Your task to perform on an android device: Clear all items from cart on newegg.com. Search for "logitech g933" on newegg.com, select the first entry, add it to the cart, then select checkout. Image 0: 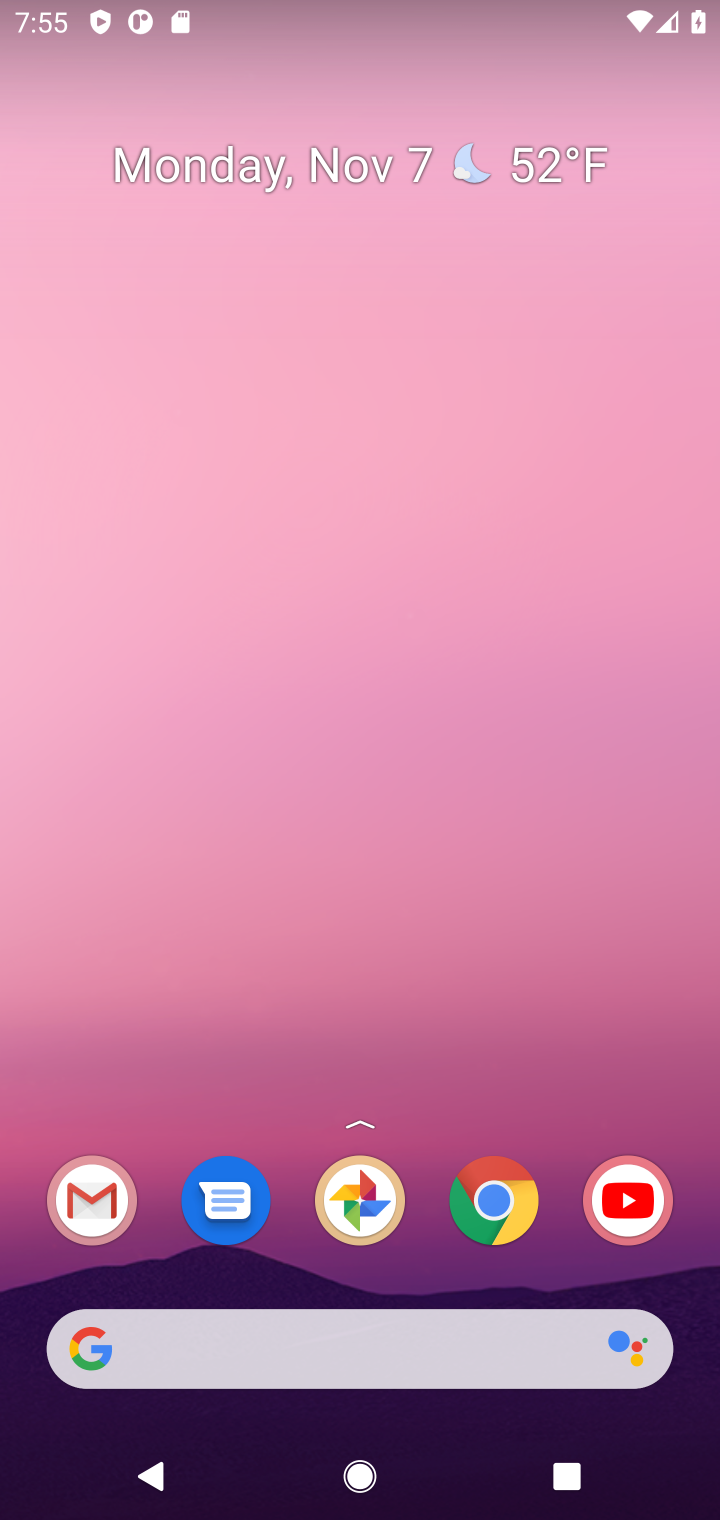
Step 0: click (473, 1224)
Your task to perform on an android device: Clear all items from cart on newegg.com. Search for "logitech g933" on newegg.com, select the first entry, add it to the cart, then select checkout. Image 1: 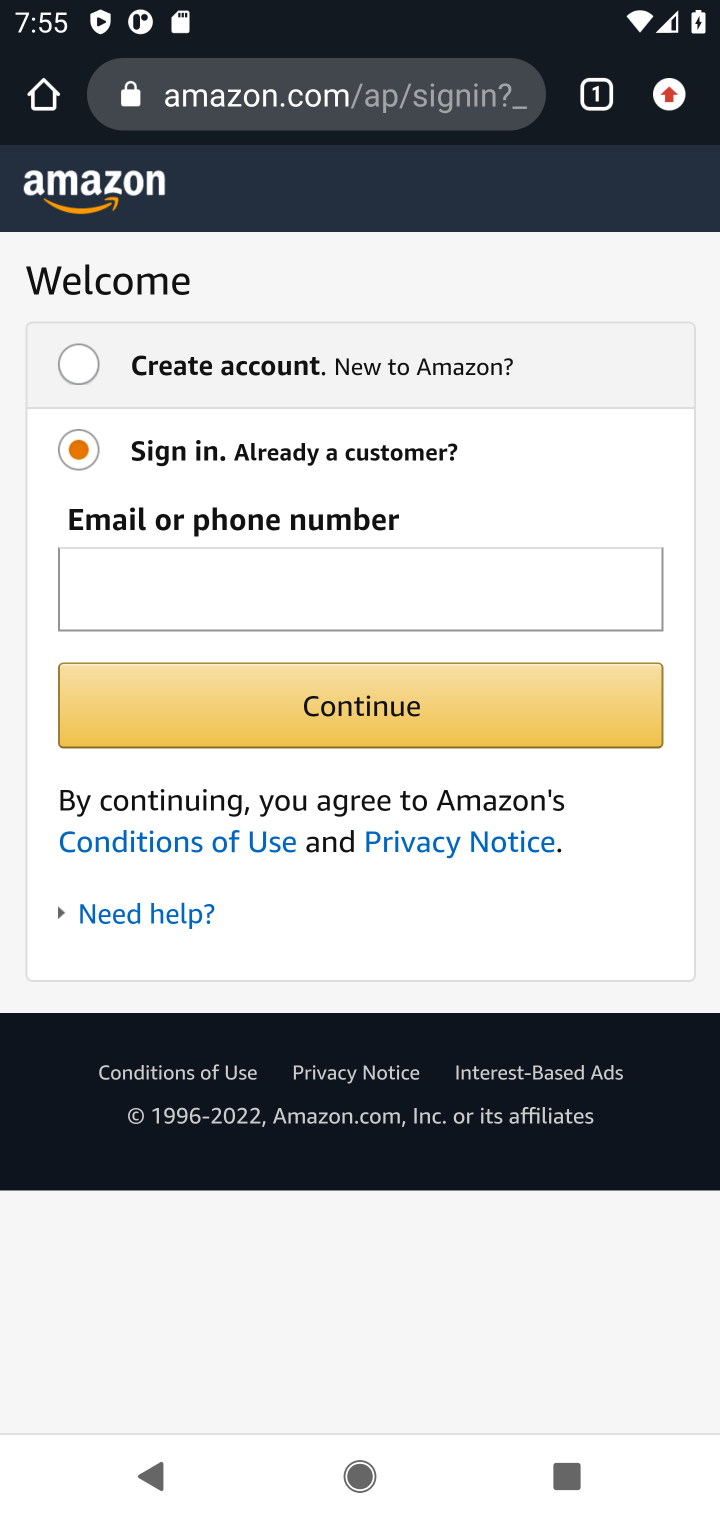
Step 1: click (286, 120)
Your task to perform on an android device: Clear all items from cart on newegg.com. Search for "logitech g933" on newegg.com, select the first entry, add it to the cart, then select checkout. Image 2: 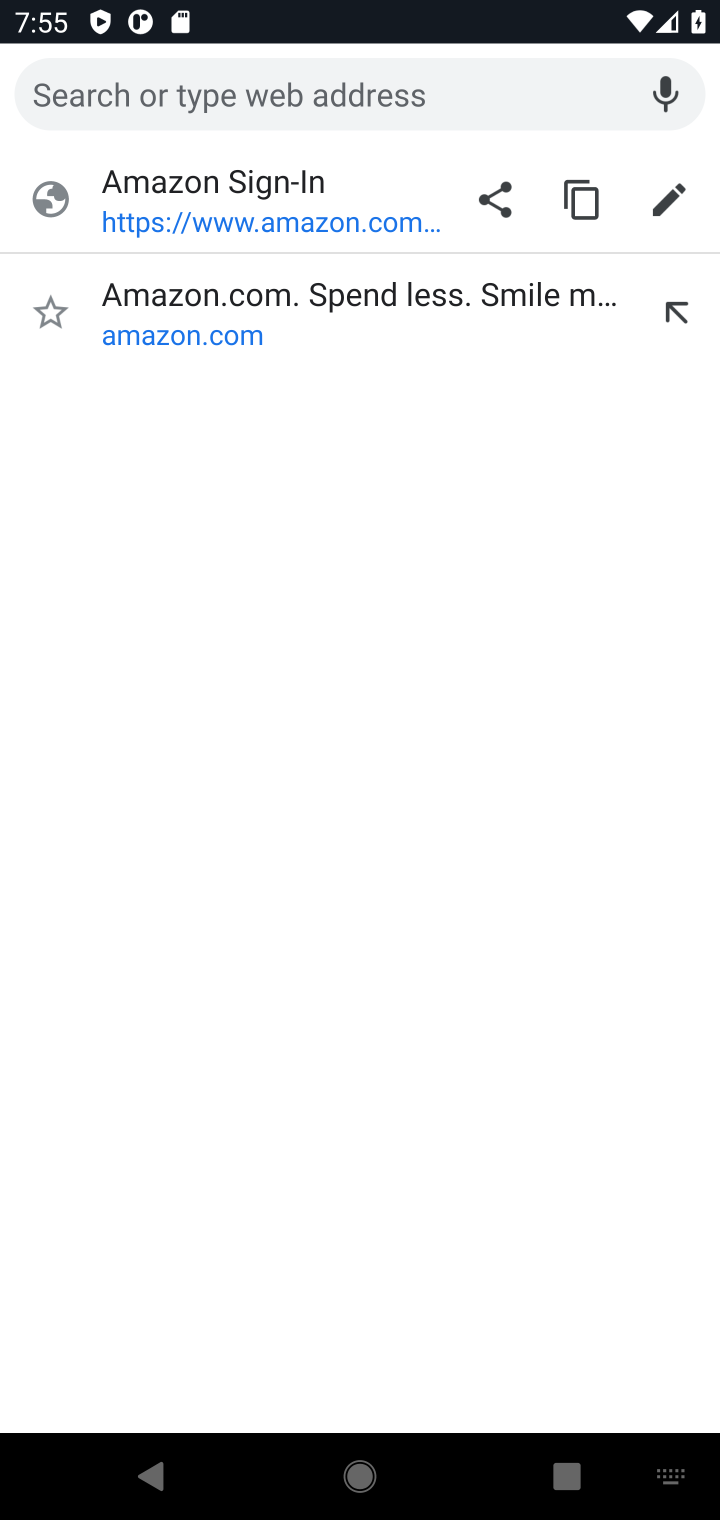
Step 2: type "newegg.com"
Your task to perform on an android device: Clear all items from cart on newegg.com. Search for "logitech g933" on newegg.com, select the first entry, add it to the cart, then select checkout. Image 3: 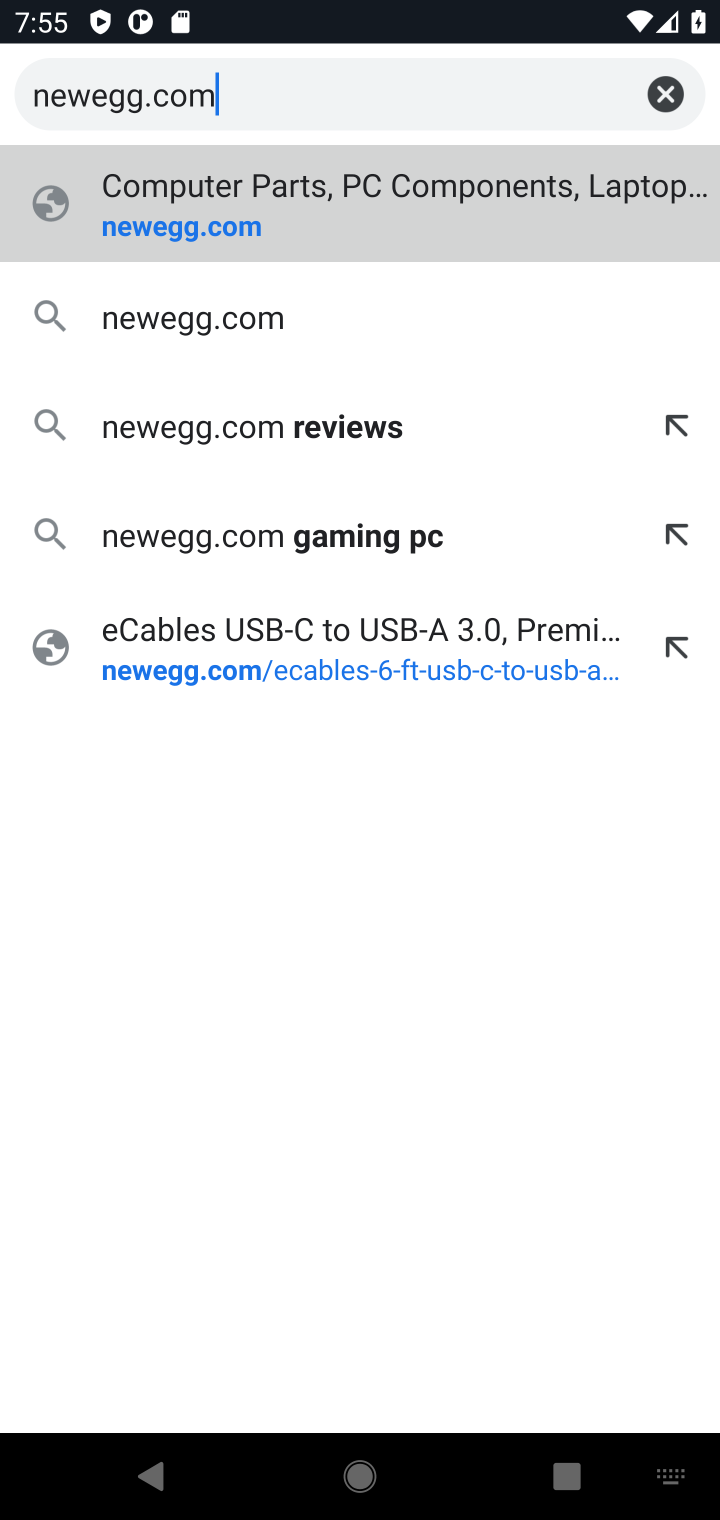
Step 3: press enter
Your task to perform on an android device: Clear all items from cart on newegg.com. Search for "logitech g933" on newegg.com, select the first entry, add it to the cart, then select checkout. Image 4: 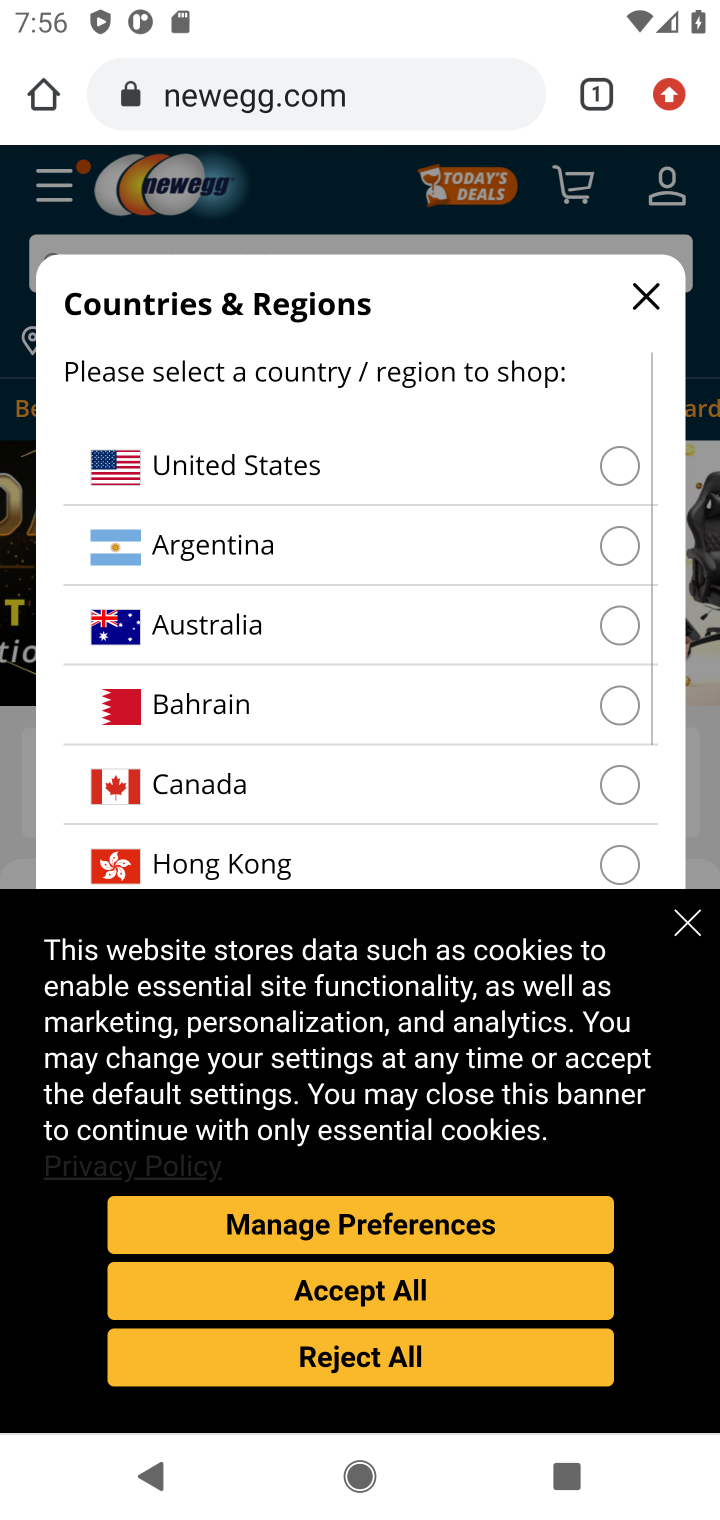
Step 4: click (383, 1302)
Your task to perform on an android device: Clear all items from cart on newegg.com. Search for "logitech g933" on newegg.com, select the first entry, add it to the cart, then select checkout. Image 5: 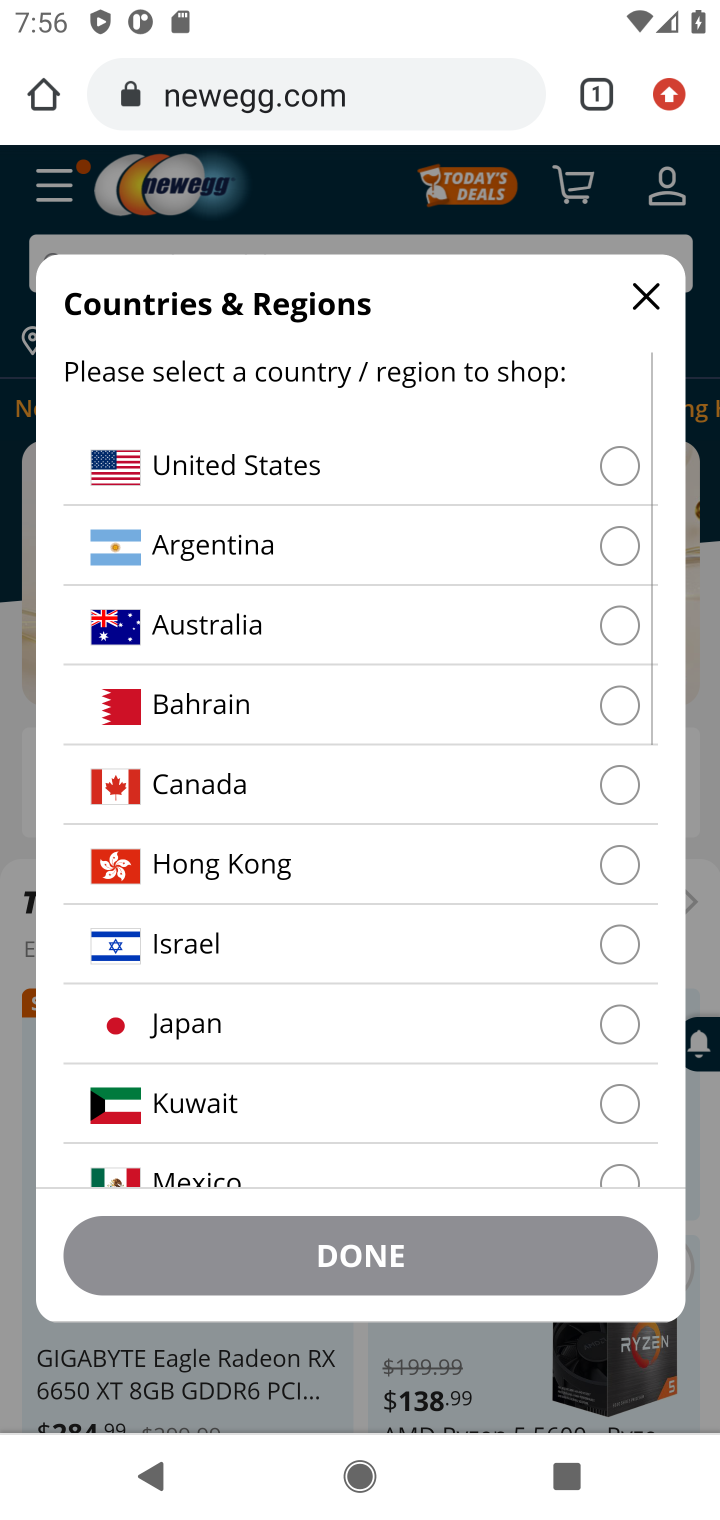
Step 5: click (612, 473)
Your task to perform on an android device: Clear all items from cart on newegg.com. Search for "logitech g933" on newegg.com, select the first entry, add it to the cart, then select checkout. Image 6: 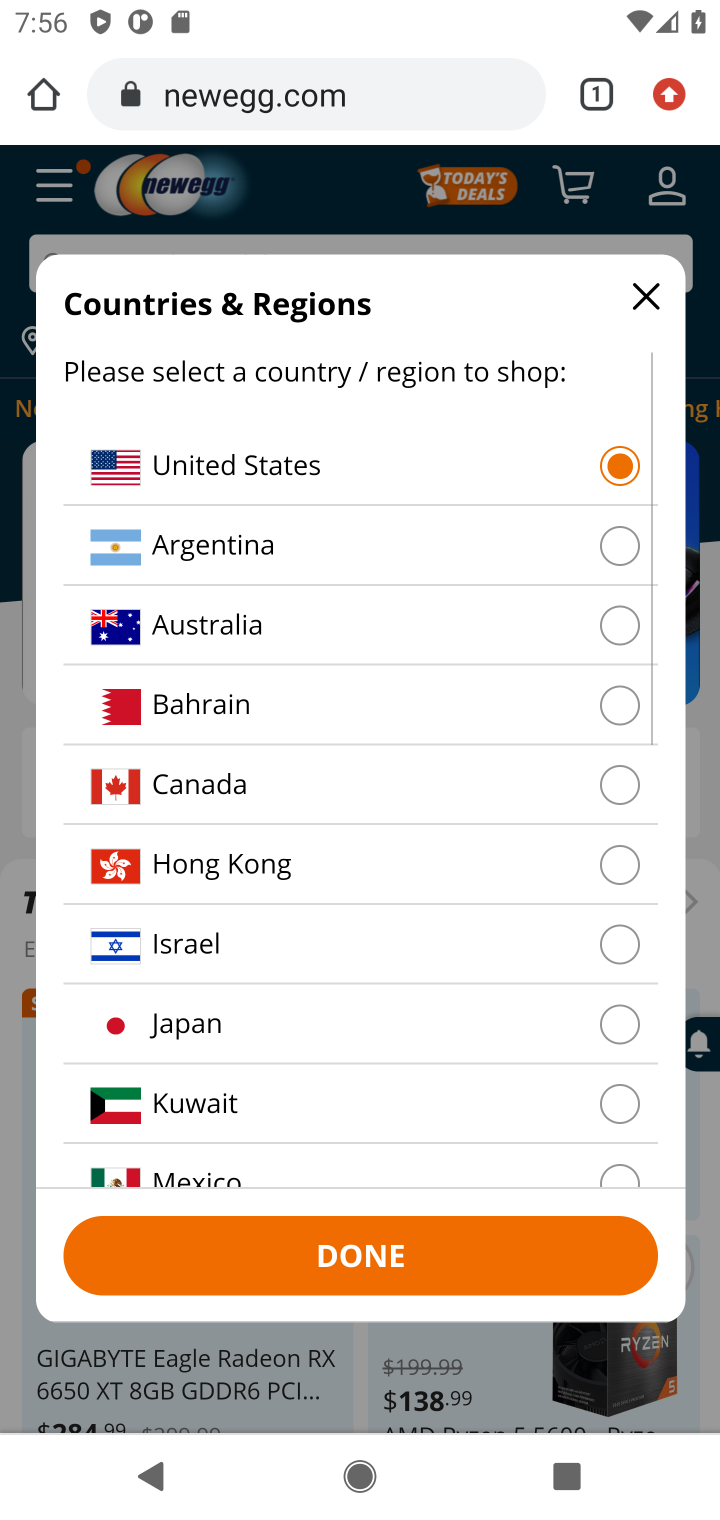
Step 6: click (467, 1272)
Your task to perform on an android device: Clear all items from cart on newegg.com. Search for "logitech g933" on newegg.com, select the first entry, add it to the cart, then select checkout. Image 7: 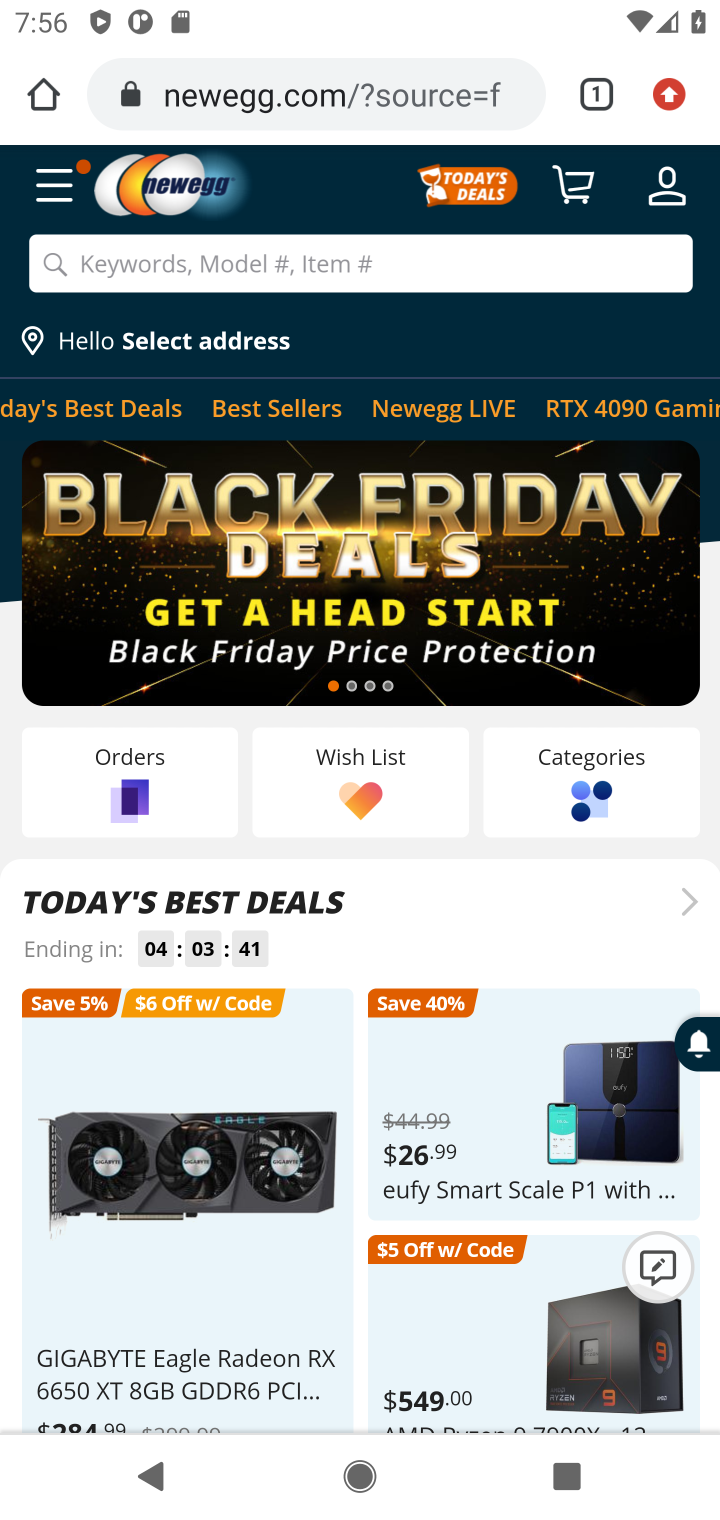
Step 7: click (34, 204)
Your task to perform on an android device: Clear all items from cart on newegg.com. Search for "logitech g933" on newegg.com, select the first entry, add it to the cart, then select checkout. Image 8: 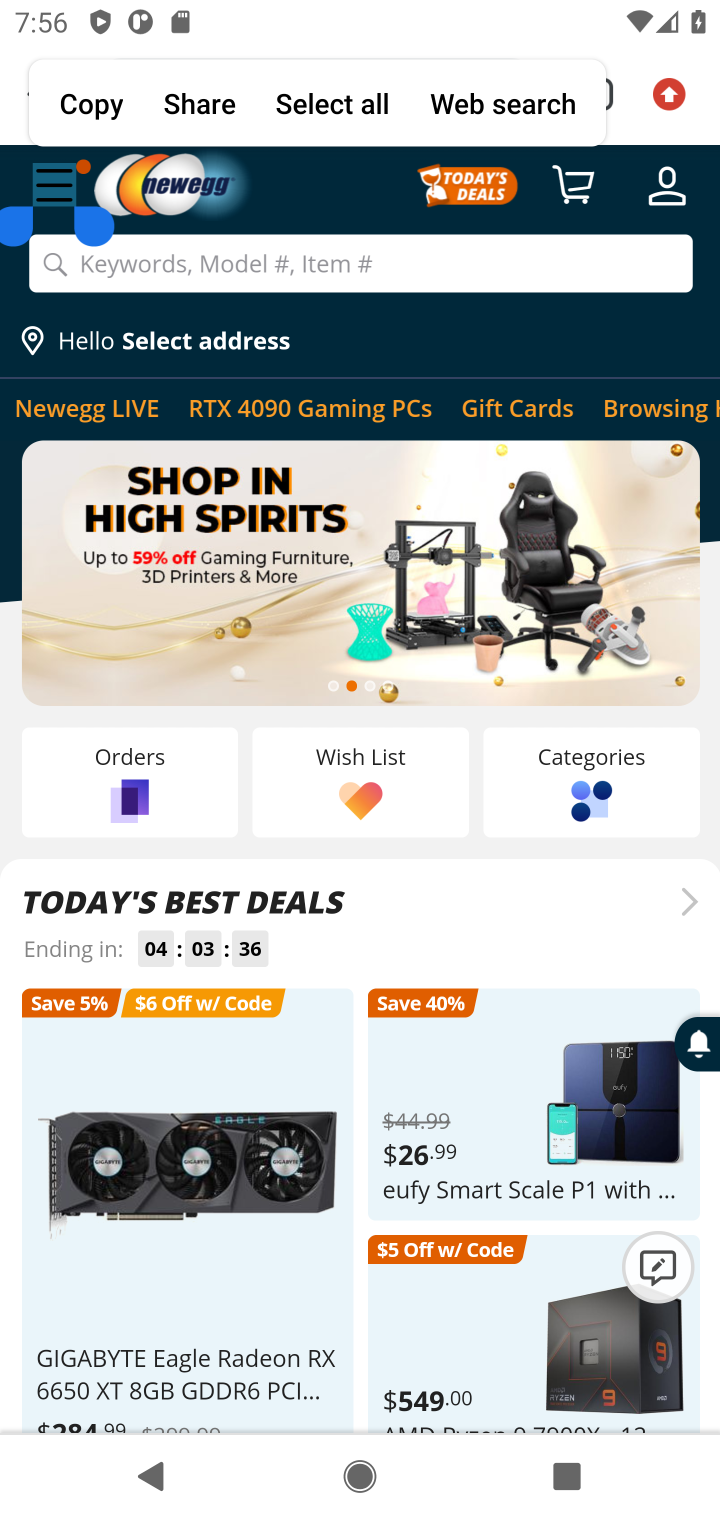
Step 8: click (69, 187)
Your task to perform on an android device: Clear all items from cart on newegg.com. Search for "logitech g933" on newegg.com, select the first entry, add it to the cart, then select checkout. Image 9: 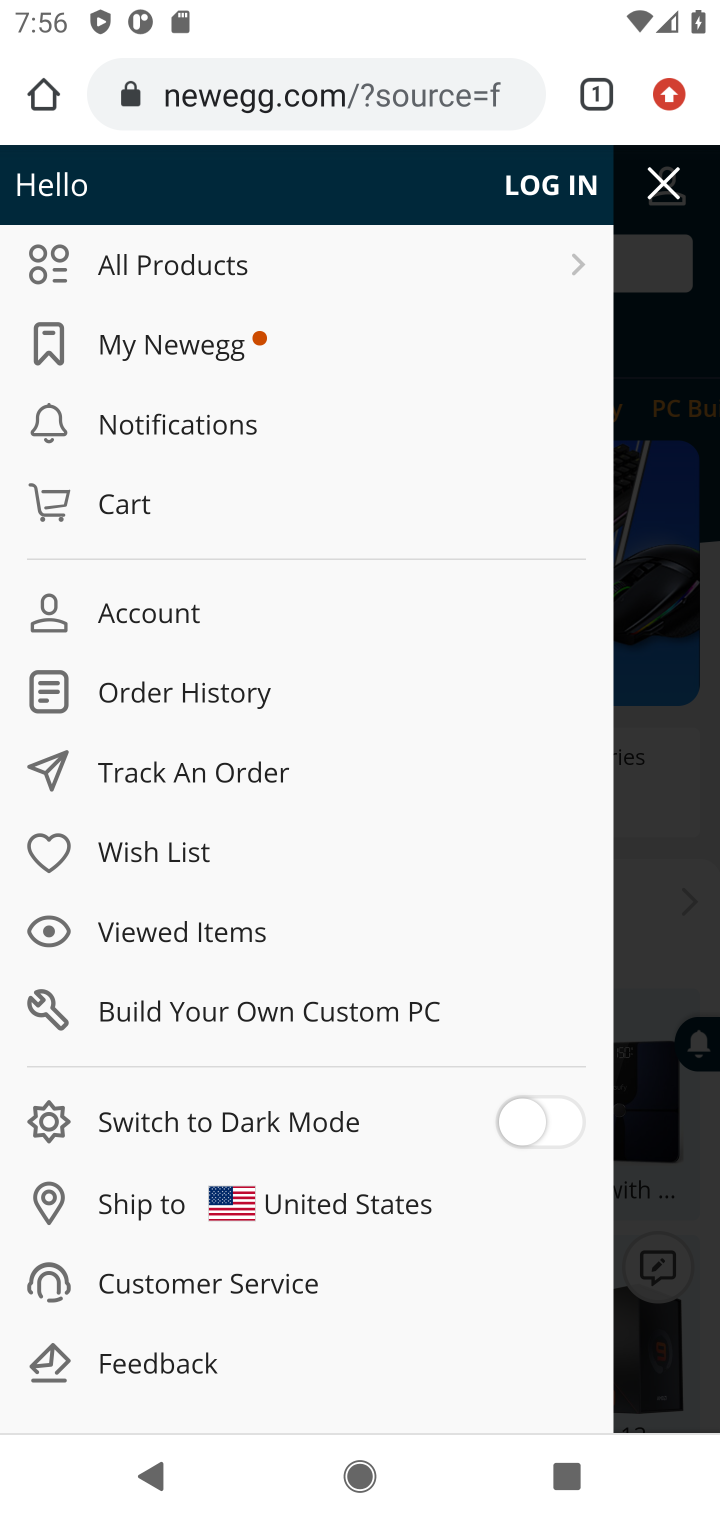
Step 9: click (112, 514)
Your task to perform on an android device: Clear all items from cart on newegg.com. Search for "logitech g933" on newegg.com, select the first entry, add it to the cart, then select checkout. Image 10: 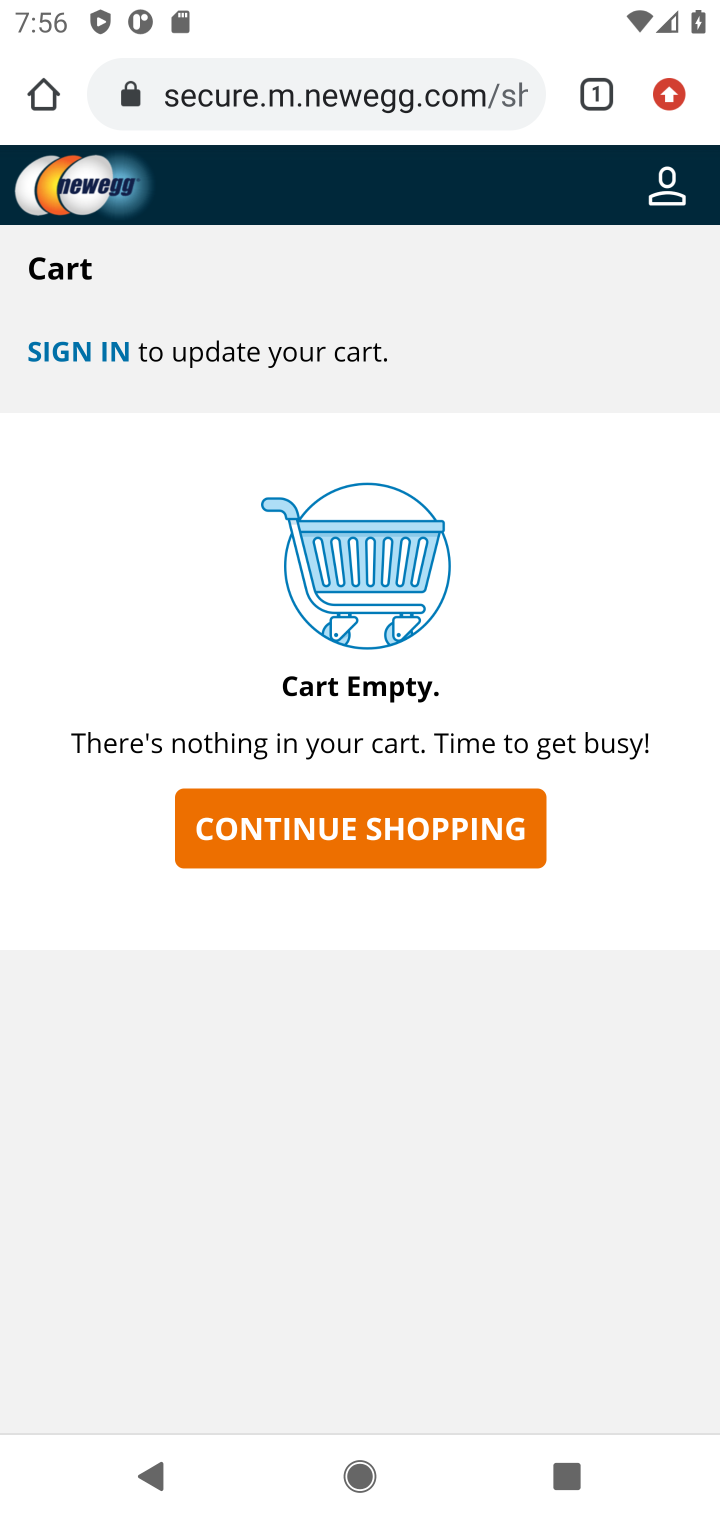
Step 10: click (81, 195)
Your task to perform on an android device: Clear all items from cart on newegg.com. Search for "logitech g933" on newegg.com, select the first entry, add it to the cart, then select checkout. Image 11: 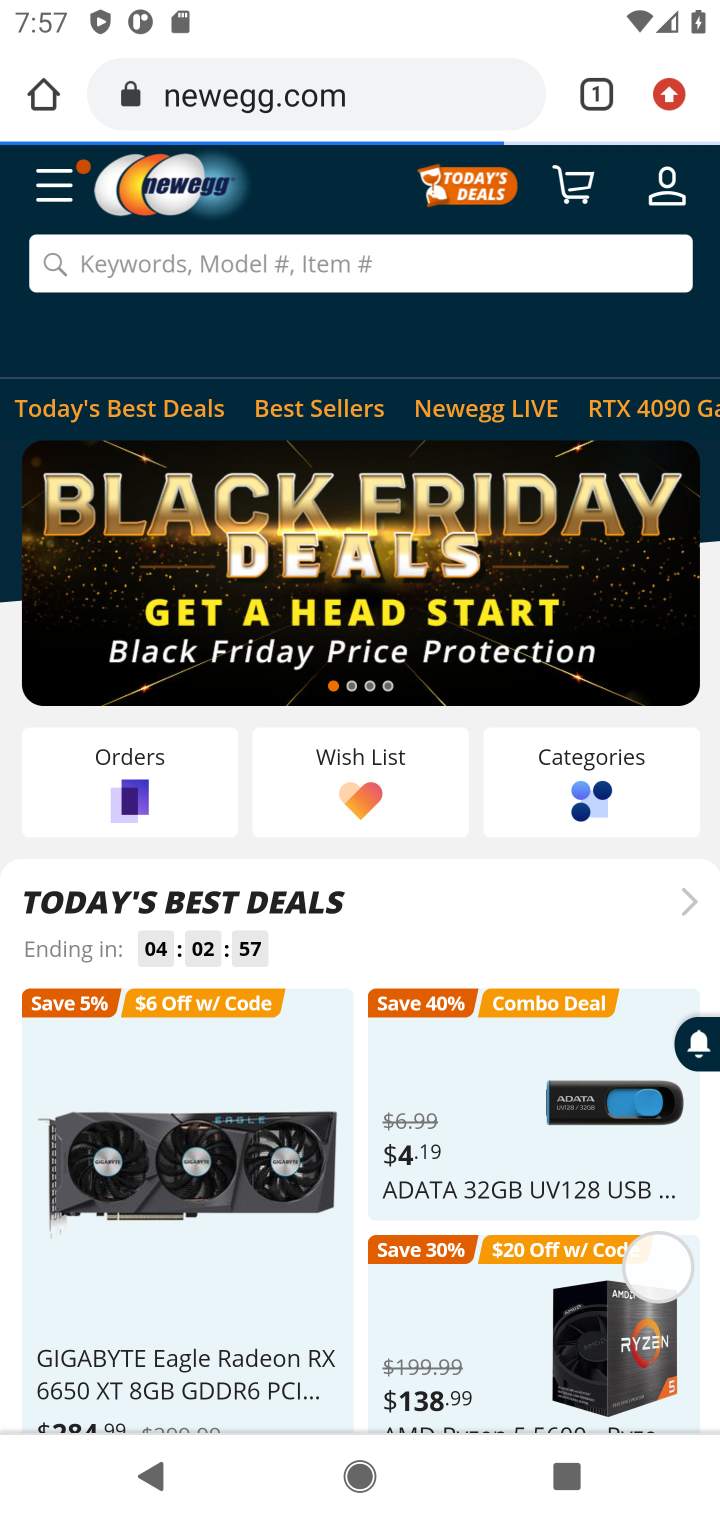
Step 11: click (212, 271)
Your task to perform on an android device: Clear all items from cart on newegg.com. Search for "logitech g933" on newegg.com, select the first entry, add it to the cart, then select checkout. Image 12: 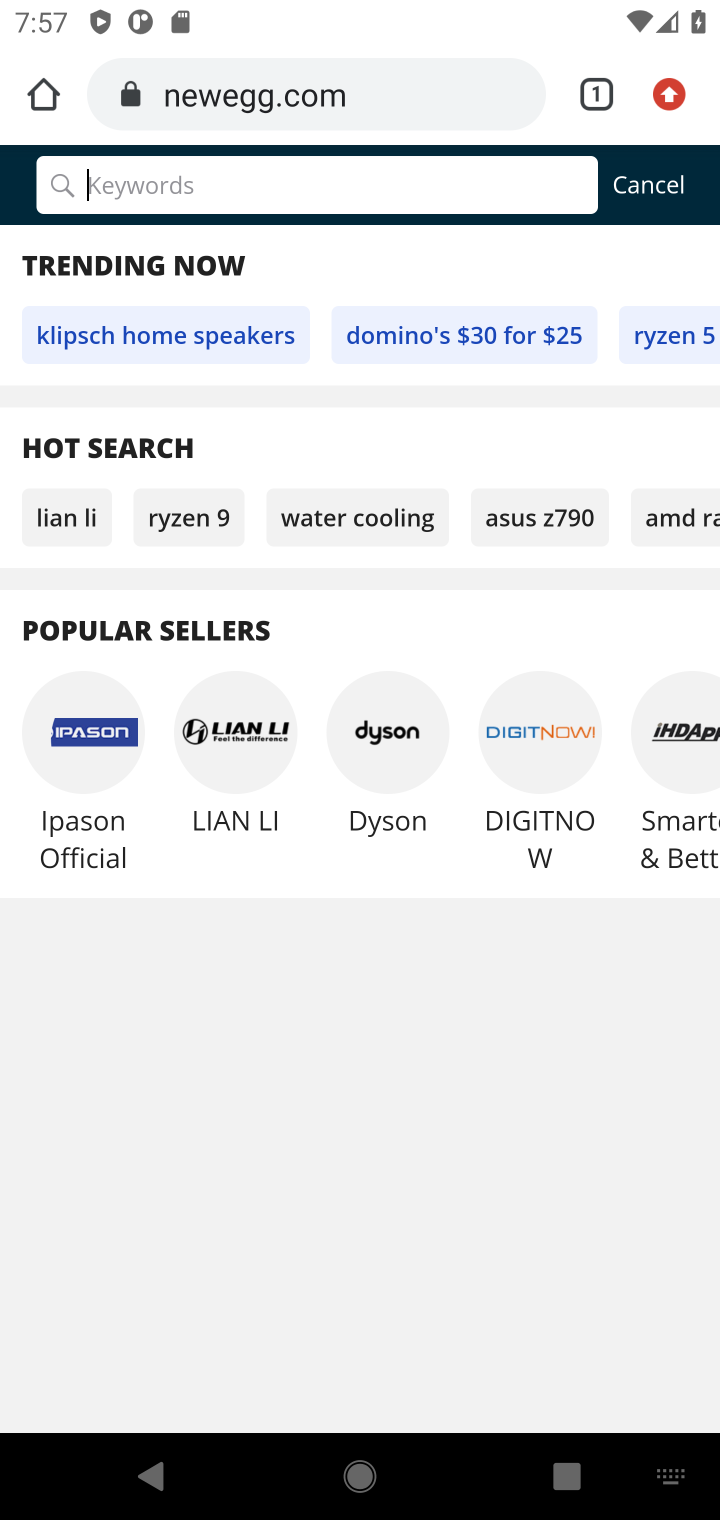
Step 12: type "logitech g933"
Your task to perform on an android device: Clear all items from cart on newegg.com. Search for "logitech g933" on newegg.com, select the first entry, add it to the cart, then select checkout. Image 13: 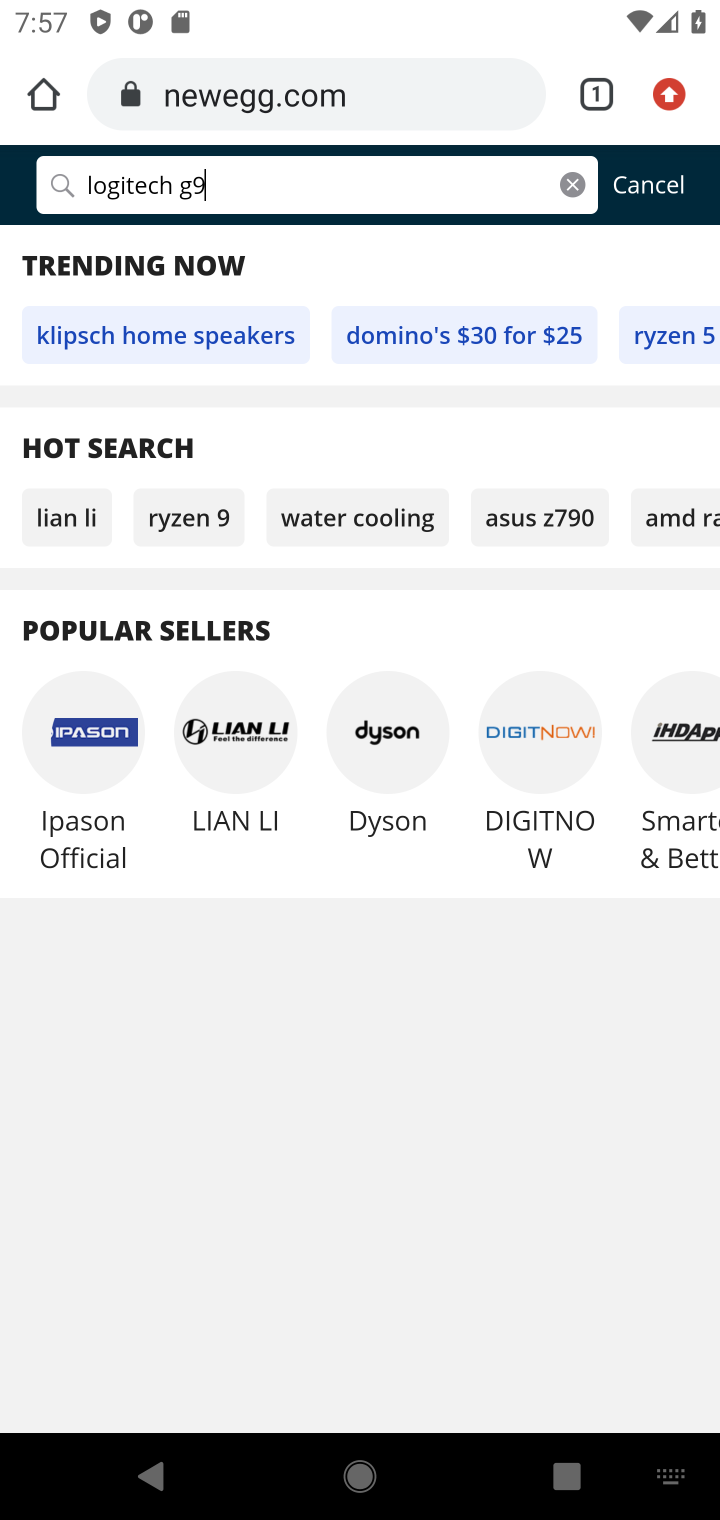
Step 13: press enter
Your task to perform on an android device: Clear all items from cart on newegg.com. Search for "logitech g933" on newegg.com, select the first entry, add it to the cart, then select checkout. Image 14: 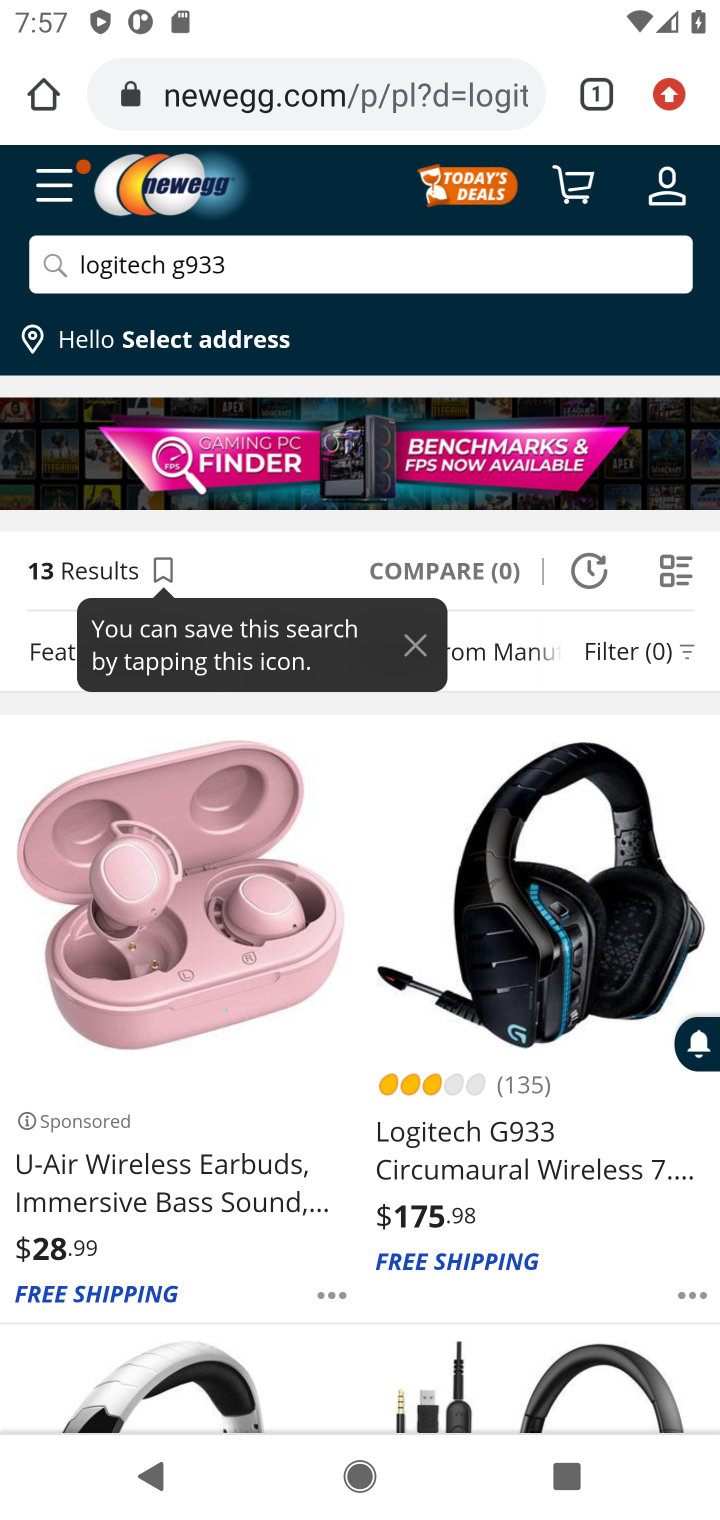
Step 14: press enter
Your task to perform on an android device: Clear all items from cart on newegg.com. Search for "logitech g933" on newegg.com, select the first entry, add it to the cart, then select checkout. Image 15: 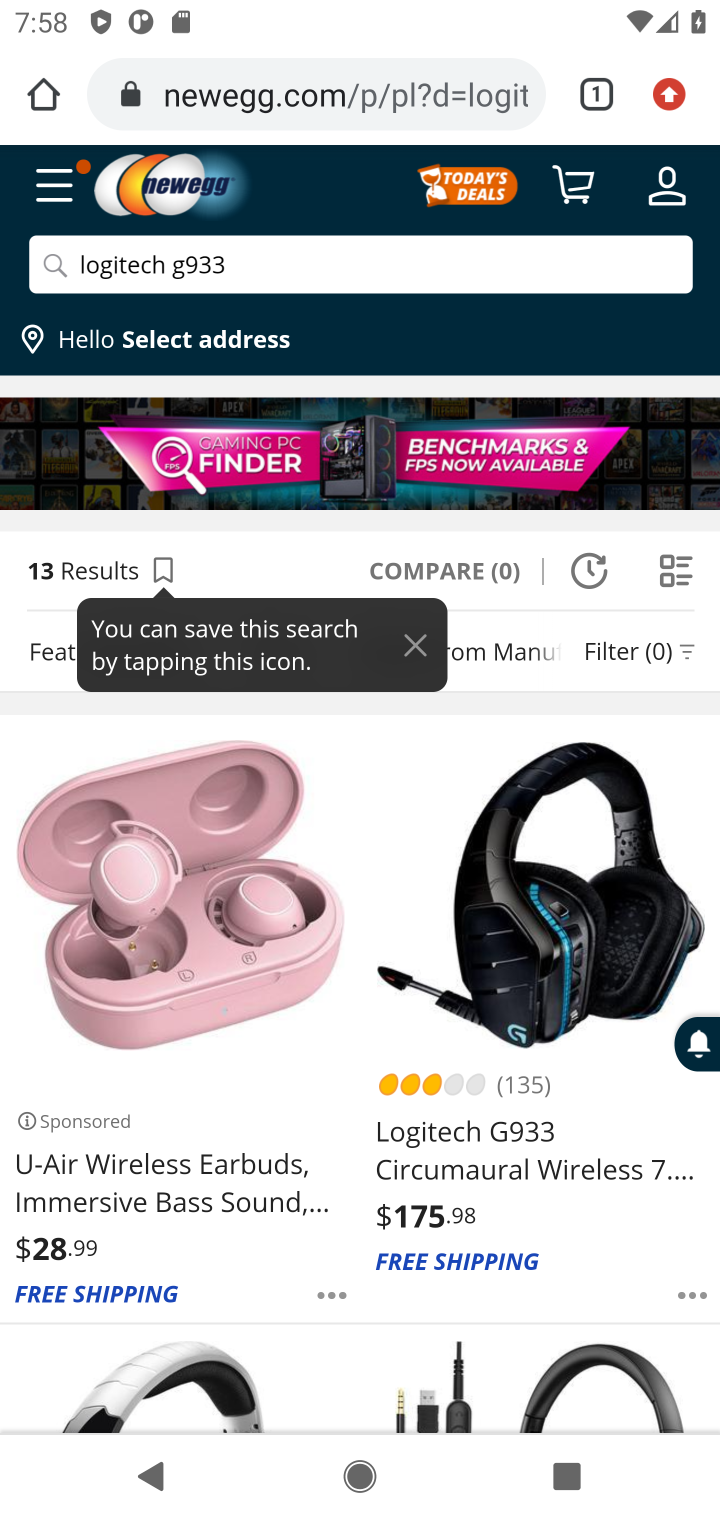
Step 15: click (171, 996)
Your task to perform on an android device: Clear all items from cart on newegg.com. Search for "logitech g933" on newegg.com, select the first entry, add it to the cart, then select checkout. Image 16: 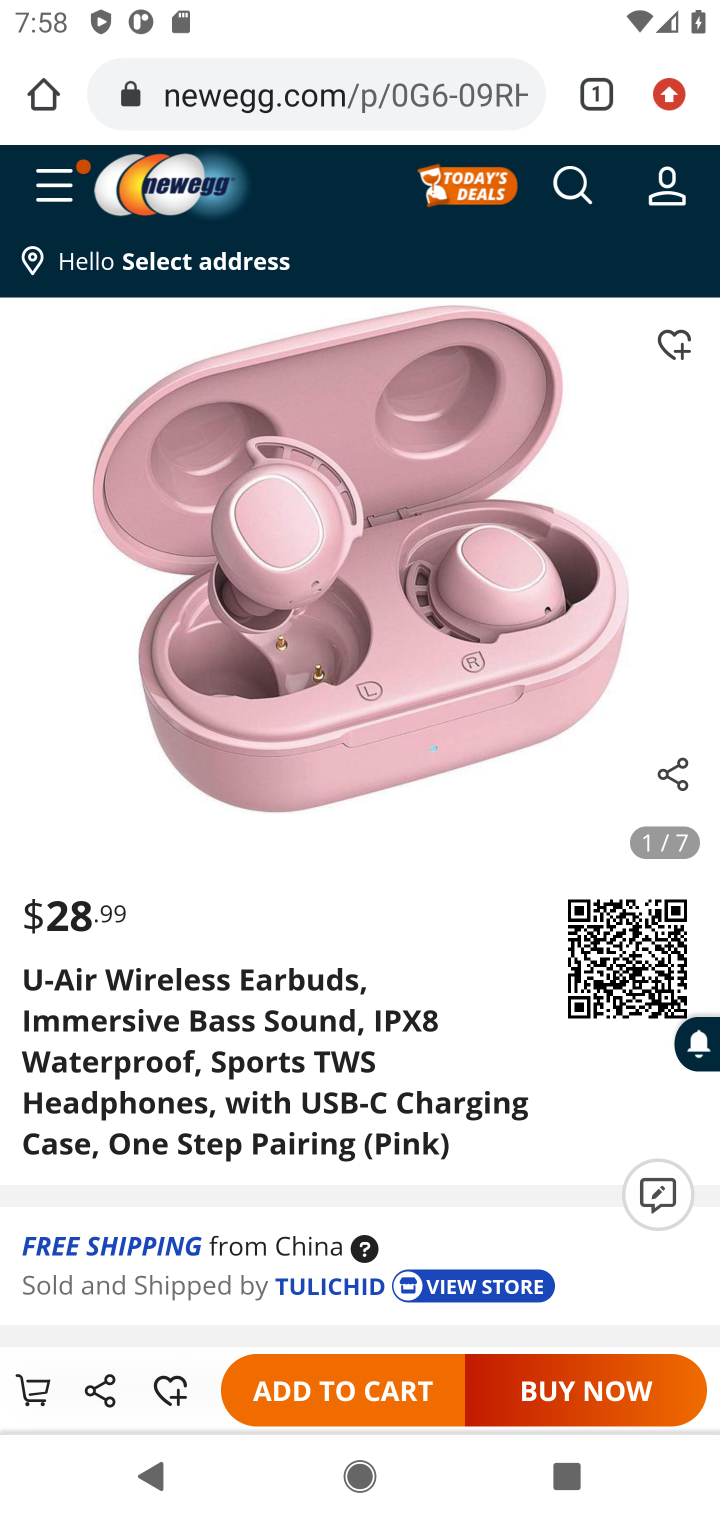
Step 16: click (383, 1400)
Your task to perform on an android device: Clear all items from cart on newegg.com. Search for "logitech g933" on newegg.com, select the first entry, add it to the cart, then select checkout. Image 17: 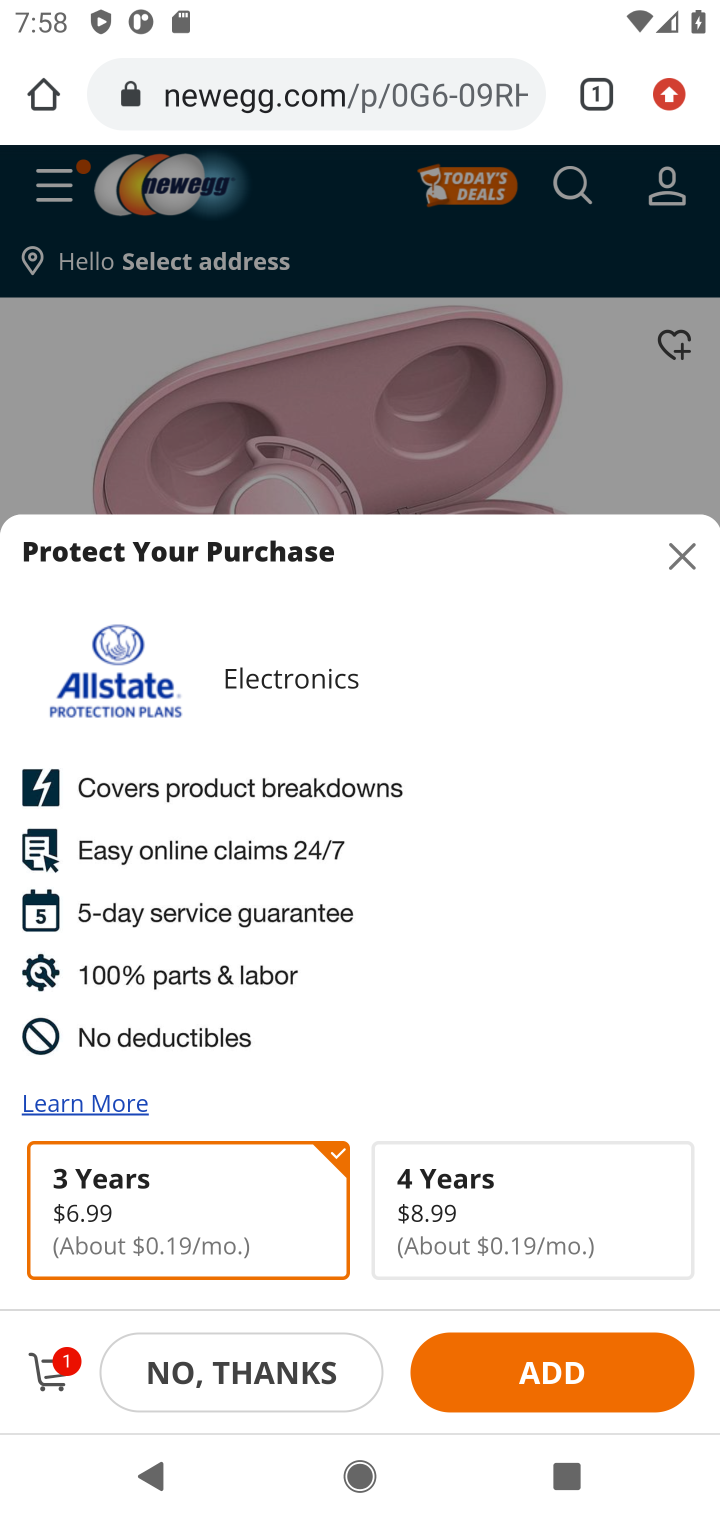
Step 17: click (525, 1380)
Your task to perform on an android device: Clear all items from cart on newegg.com. Search for "logitech g933" on newegg.com, select the first entry, add it to the cart, then select checkout. Image 18: 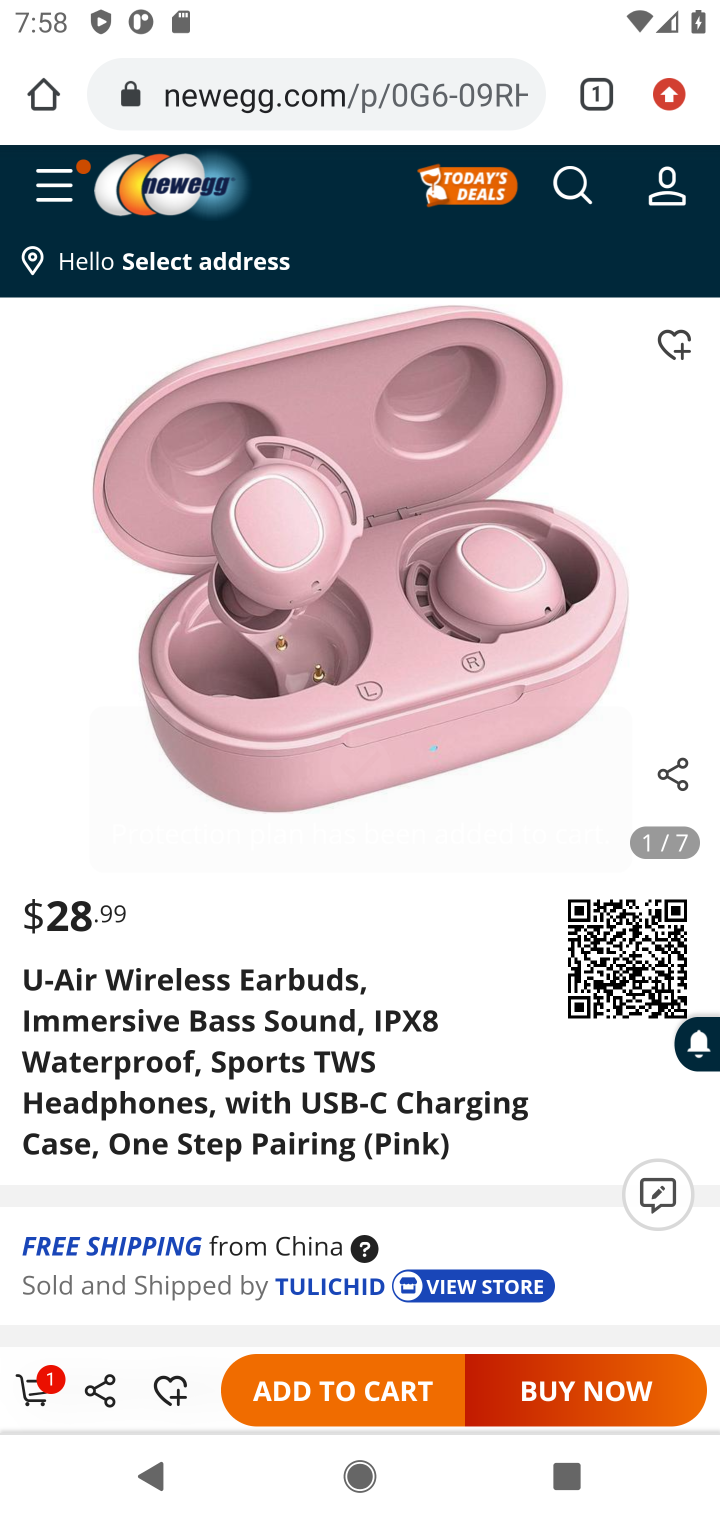
Step 18: click (68, 192)
Your task to perform on an android device: Clear all items from cart on newegg.com. Search for "logitech g933" on newegg.com, select the first entry, add it to the cart, then select checkout. Image 19: 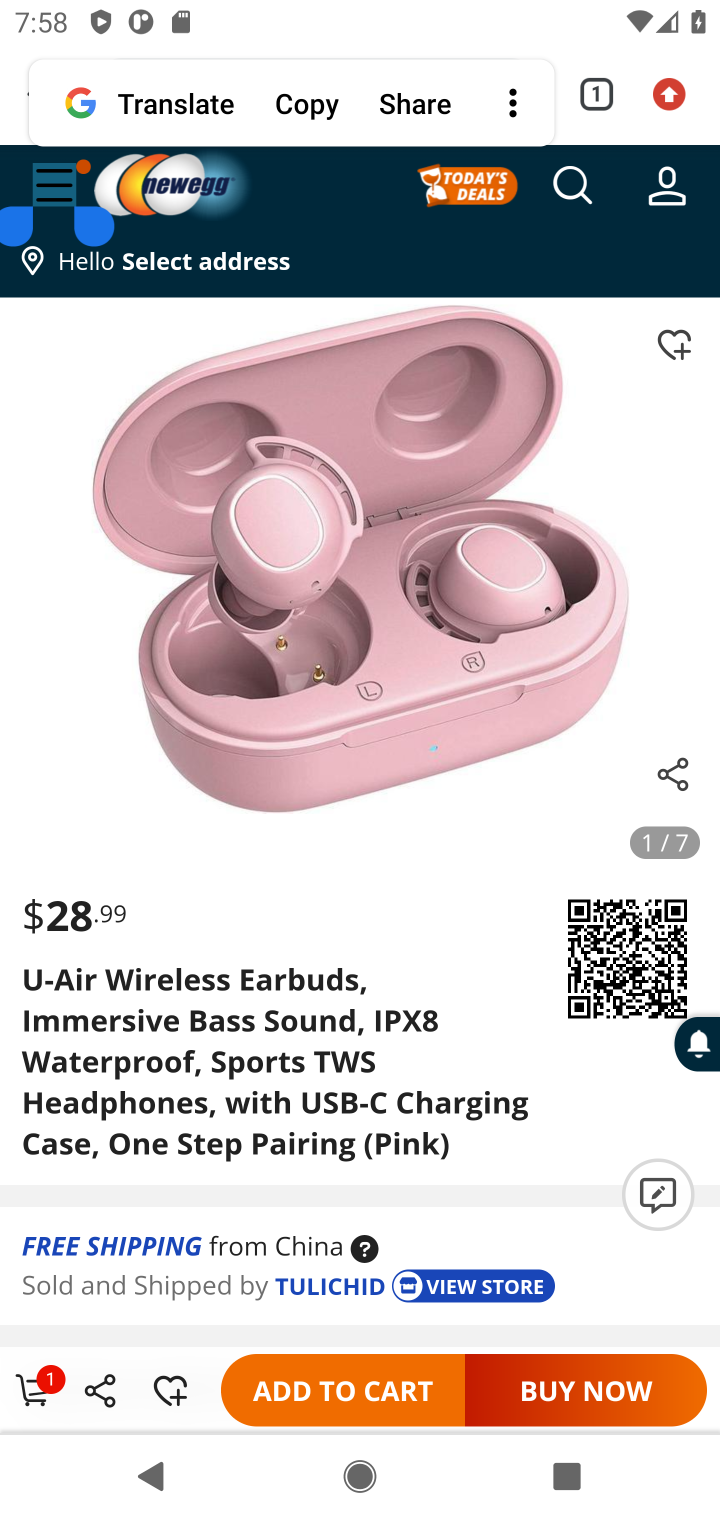
Step 19: click (58, 199)
Your task to perform on an android device: Clear all items from cart on newegg.com. Search for "logitech g933" on newegg.com, select the first entry, add it to the cart, then select checkout. Image 20: 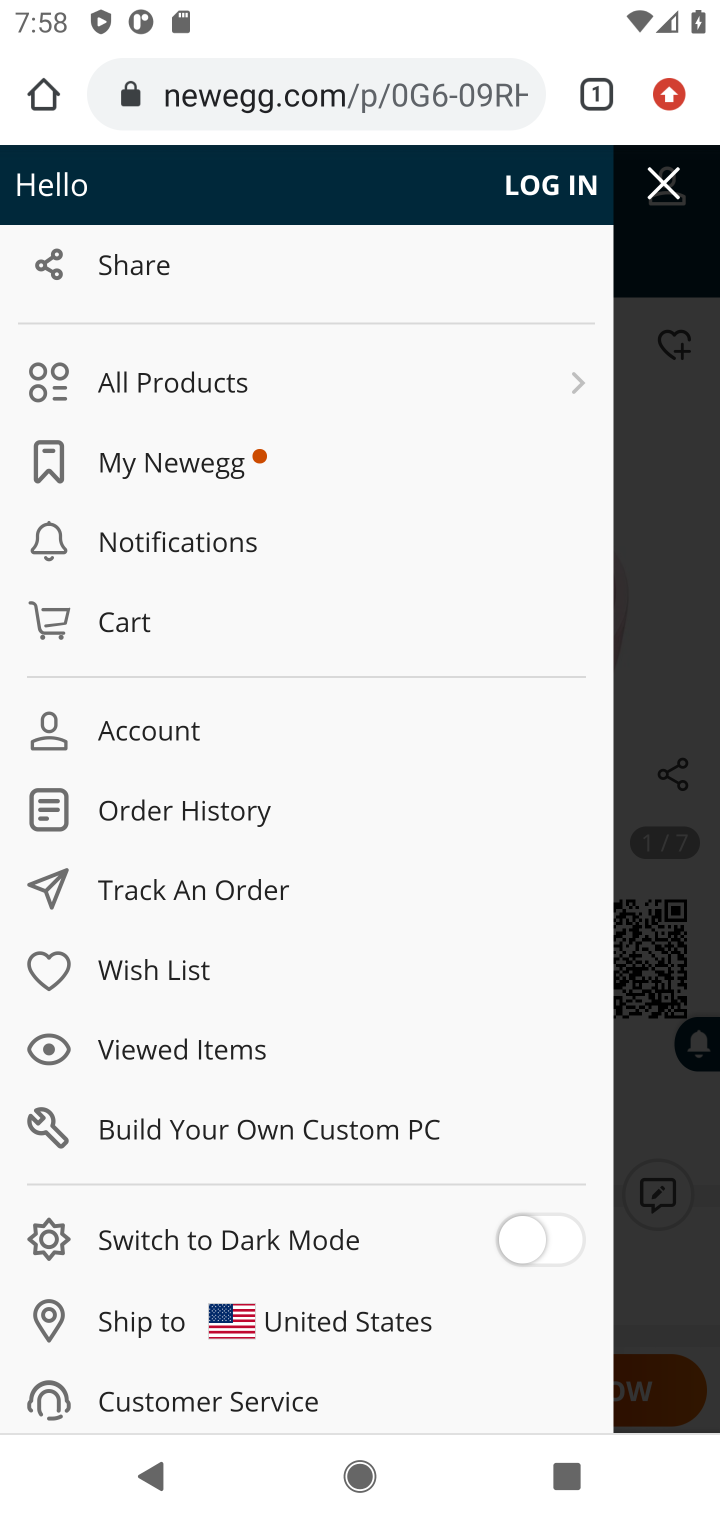
Step 20: click (114, 637)
Your task to perform on an android device: Clear all items from cart on newegg.com. Search for "logitech g933" on newegg.com, select the first entry, add it to the cart, then select checkout. Image 21: 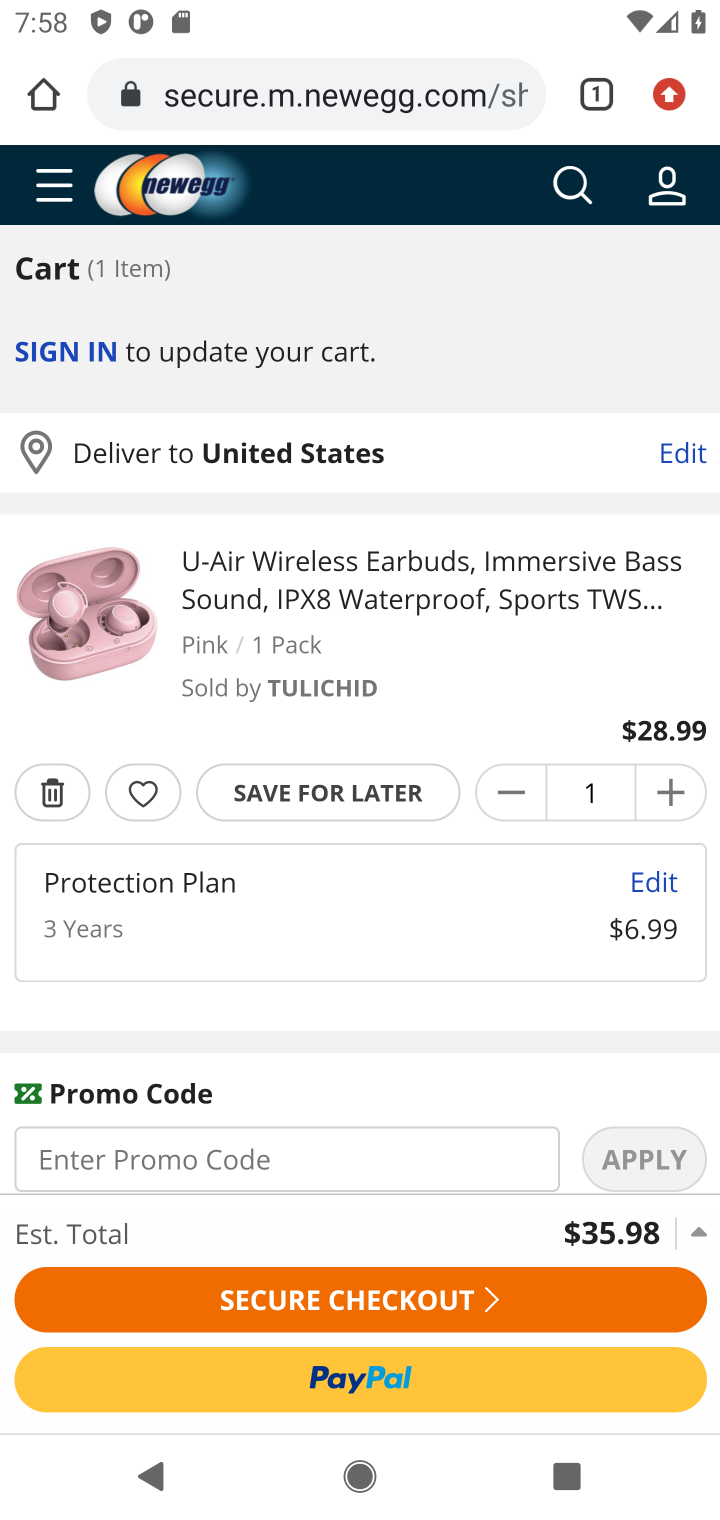
Step 21: click (253, 1337)
Your task to perform on an android device: Clear all items from cart on newegg.com. Search for "logitech g933" on newegg.com, select the first entry, add it to the cart, then select checkout. Image 22: 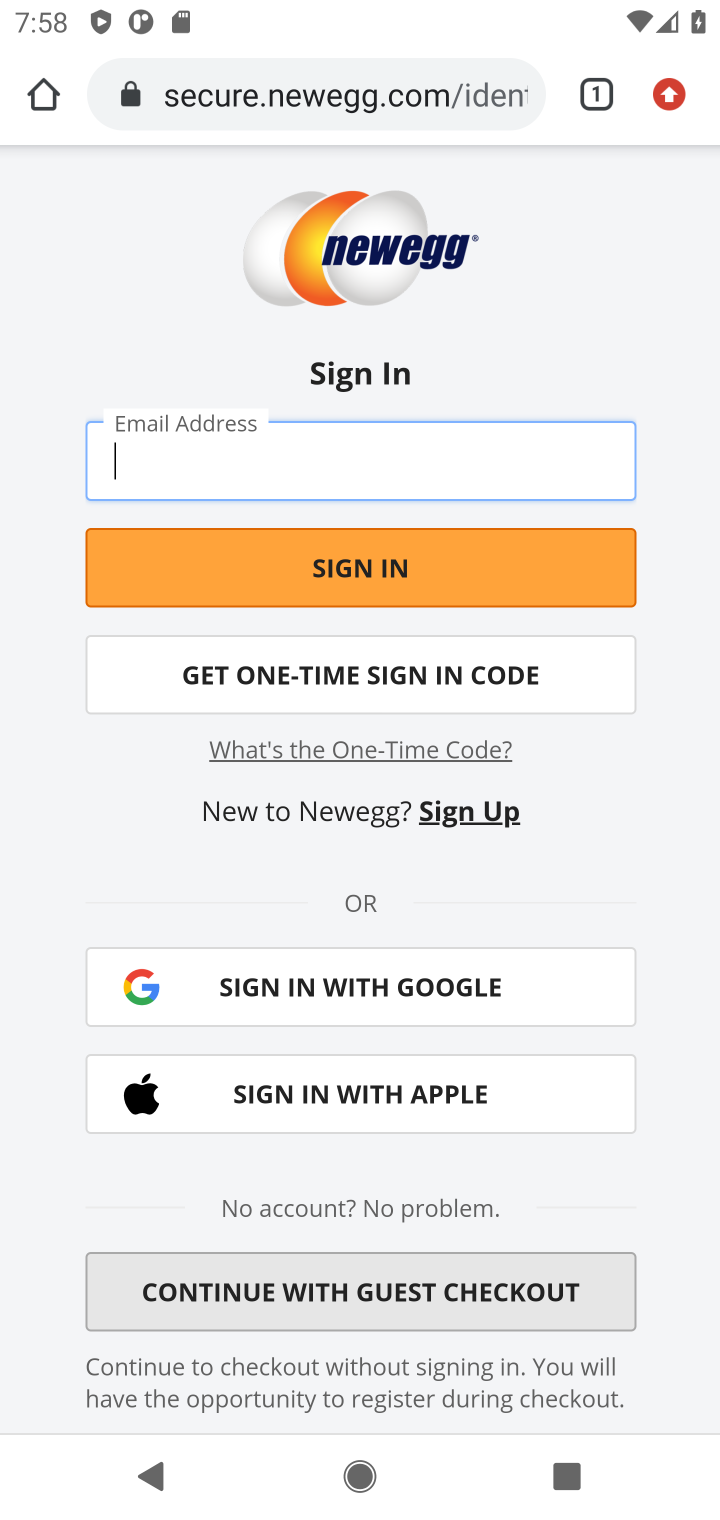
Step 22: task complete